Your task to perform on an android device: remove spam from my inbox in the gmail app Image 0: 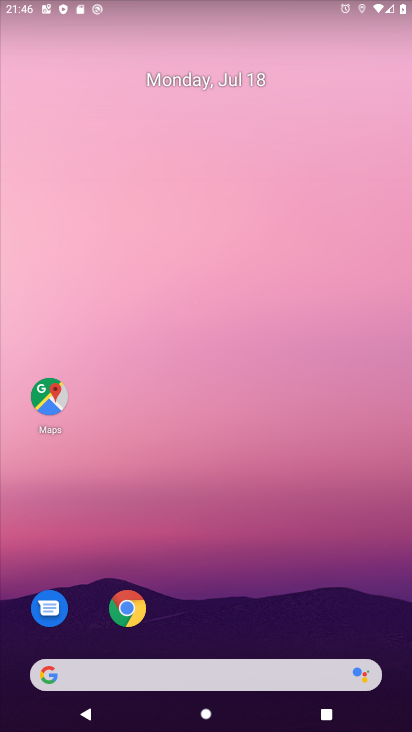
Step 0: click (137, 599)
Your task to perform on an android device: remove spam from my inbox in the gmail app Image 1: 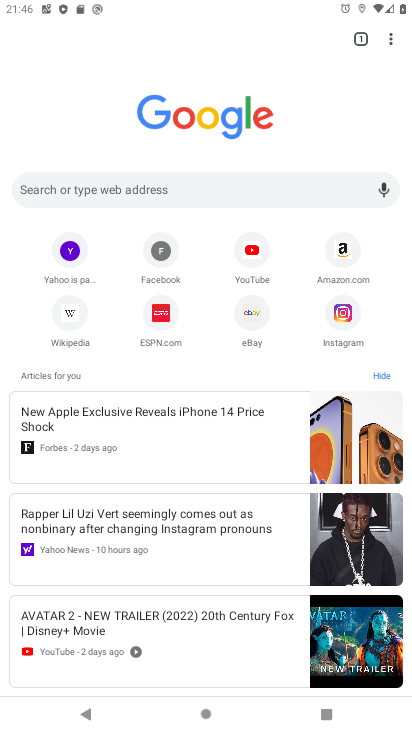
Step 1: press home button
Your task to perform on an android device: remove spam from my inbox in the gmail app Image 2: 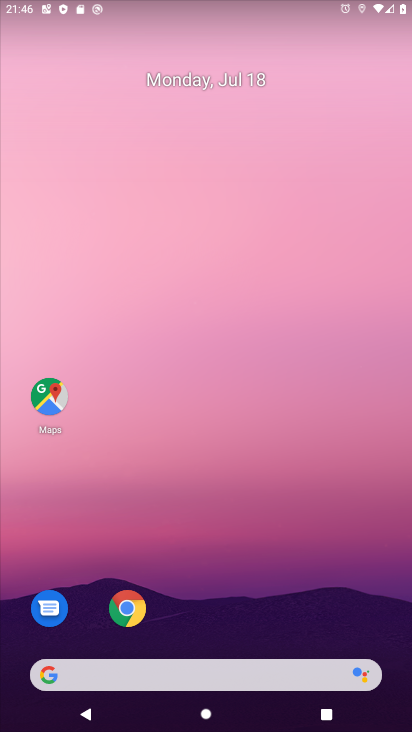
Step 2: drag from (69, 565) to (212, 160)
Your task to perform on an android device: remove spam from my inbox in the gmail app Image 3: 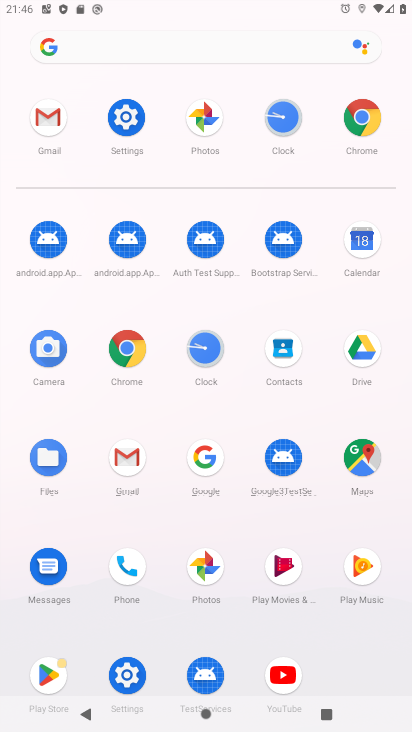
Step 3: click (127, 459)
Your task to perform on an android device: remove spam from my inbox in the gmail app Image 4: 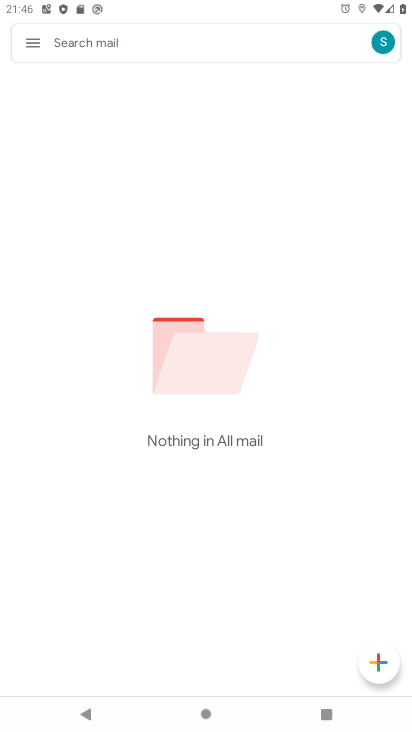
Step 4: click (40, 43)
Your task to perform on an android device: remove spam from my inbox in the gmail app Image 5: 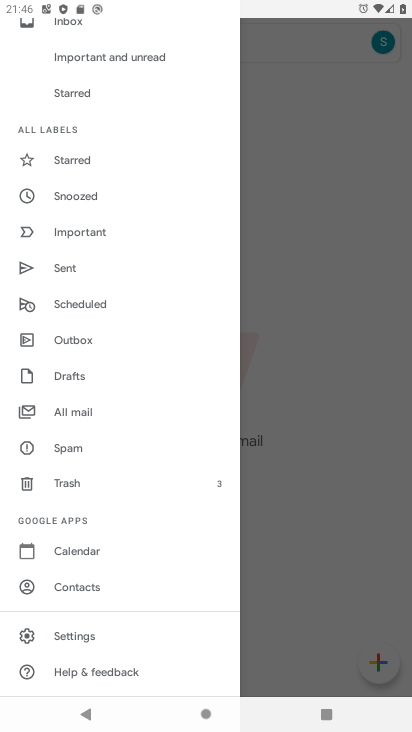
Step 5: click (95, 456)
Your task to perform on an android device: remove spam from my inbox in the gmail app Image 6: 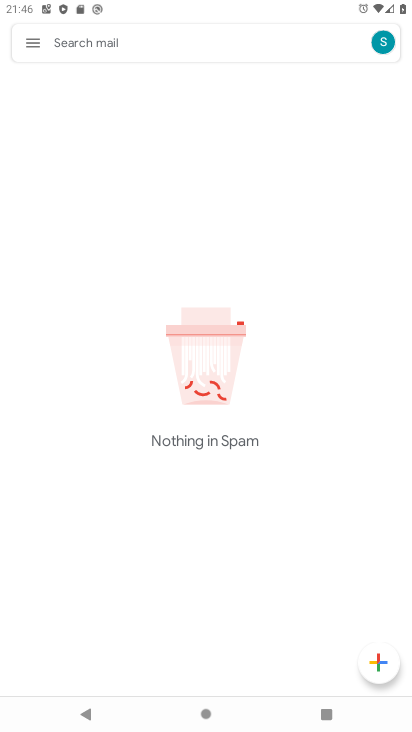
Step 6: task complete